Your task to perform on an android device: toggle location history Image 0: 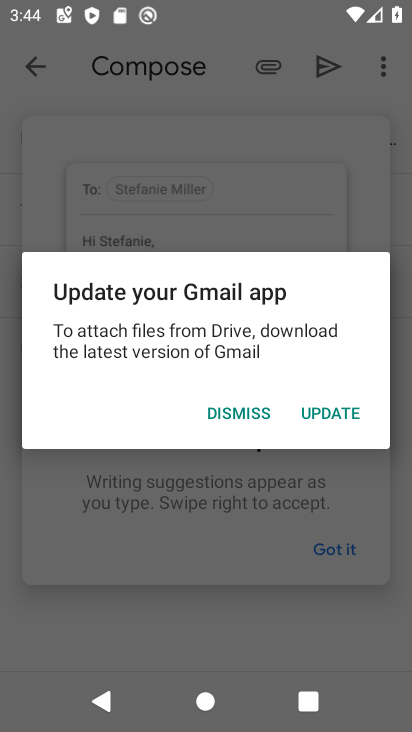
Step 0: press home button
Your task to perform on an android device: toggle location history Image 1: 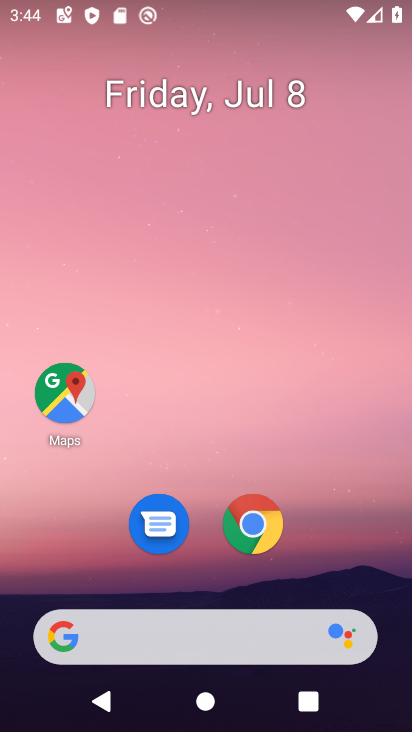
Step 1: drag from (349, 522) to (313, 0)
Your task to perform on an android device: toggle location history Image 2: 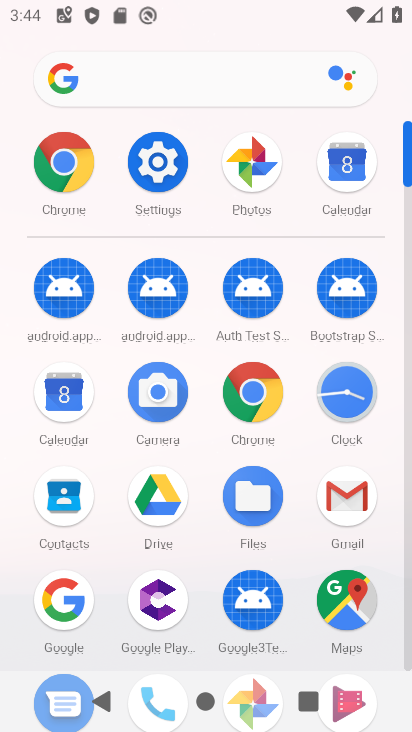
Step 2: click (159, 163)
Your task to perform on an android device: toggle location history Image 3: 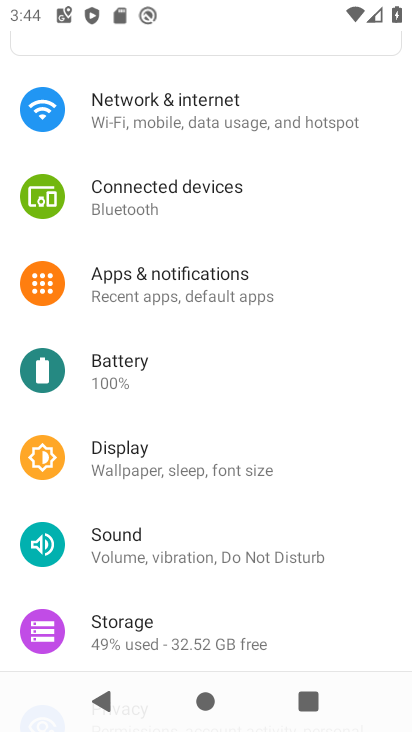
Step 3: drag from (233, 525) to (255, 139)
Your task to perform on an android device: toggle location history Image 4: 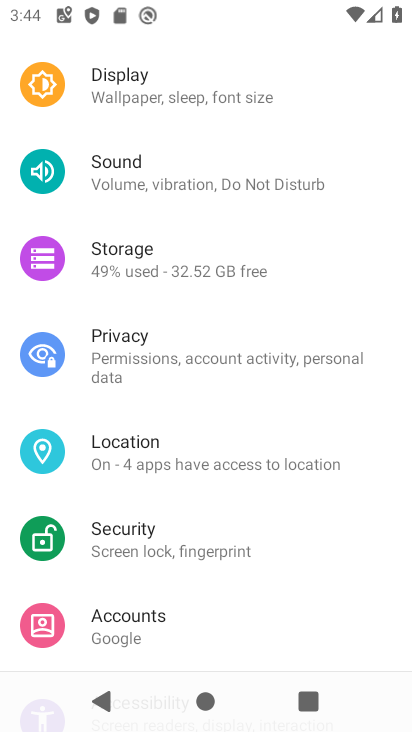
Step 4: click (195, 449)
Your task to perform on an android device: toggle location history Image 5: 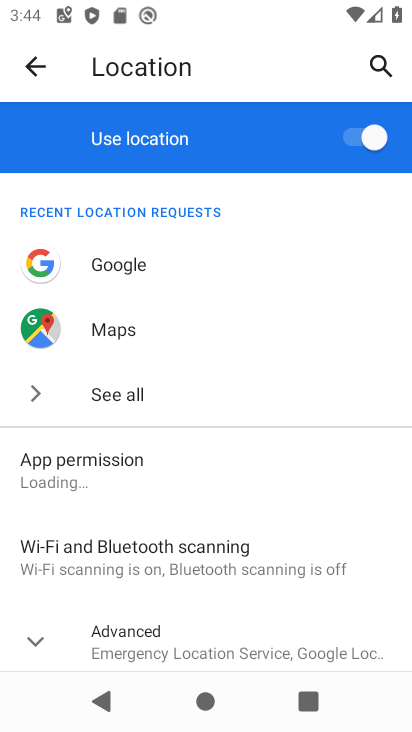
Step 5: drag from (212, 612) to (243, 502)
Your task to perform on an android device: toggle location history Image 6: 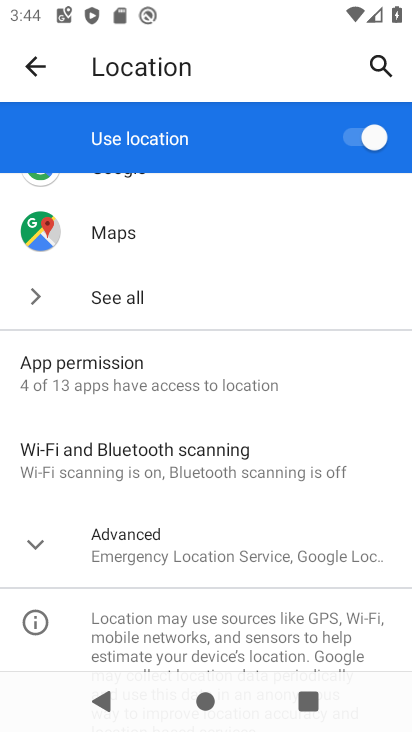
Step 6: click (37, 544)
Your task to perform on an android device: toggle location history Image 7: 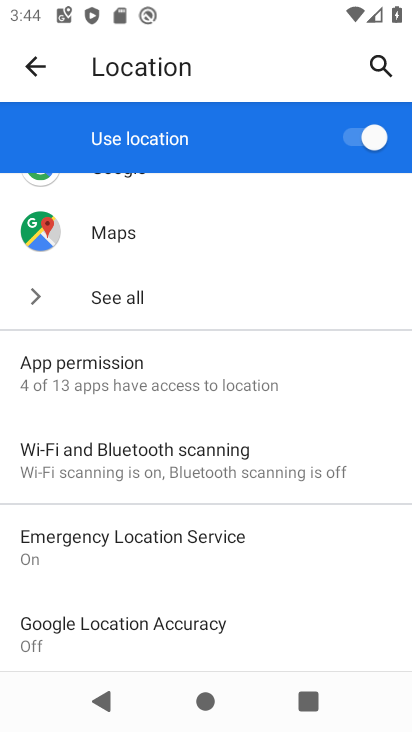
Step 7: drag from (249, 619) to (272, 317)
Your task to perform on an android device: toggle location history Image 8: 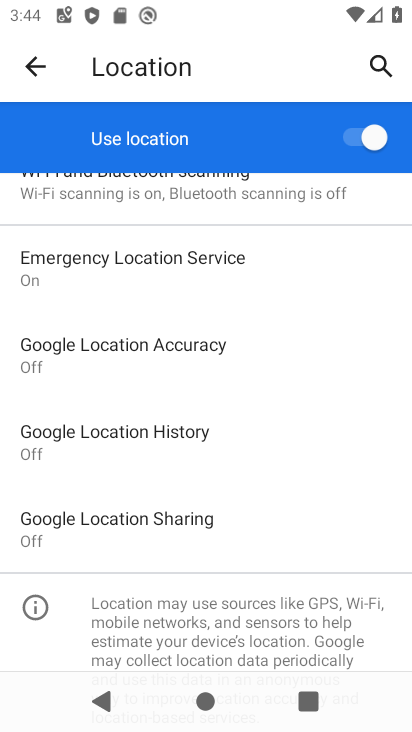
Step 8: click (173, 437)
Your task to perform on an android device: toggle location history Image 9: 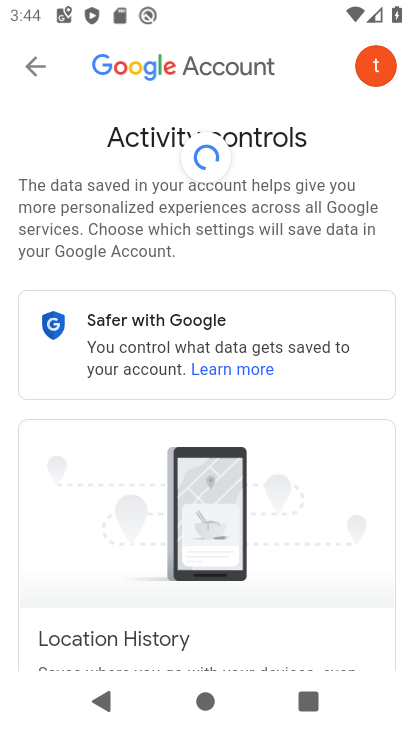
Step 9: drag from (284, 578) to (325, 169)
Your task to perform on an android device: toggle location history Image 10: 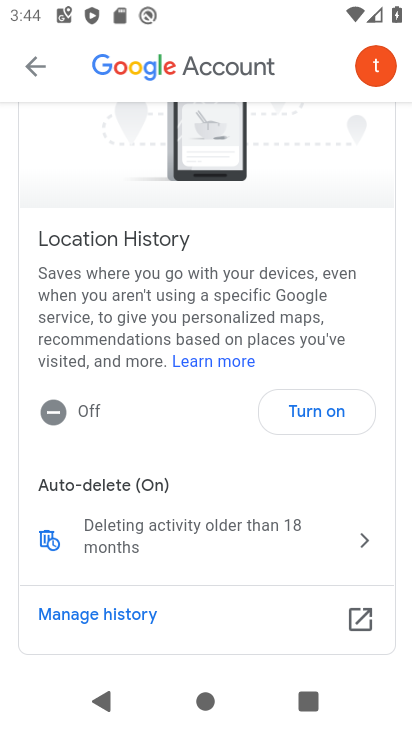
Step 10: click (337, 418)
Your task to perform on an android device: toggle location history Image 11: 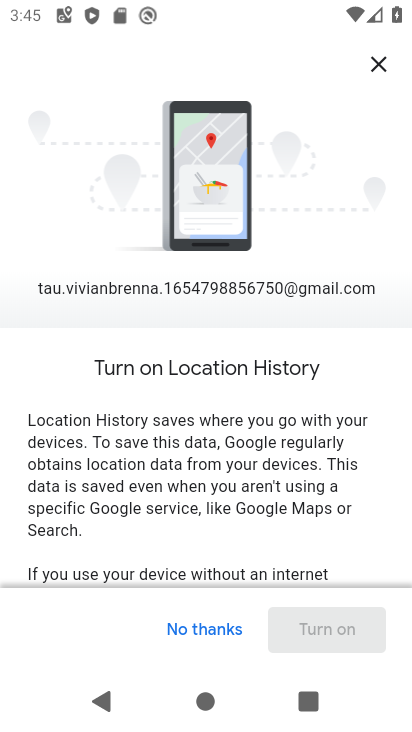
Step 11: drag from (295, 517) to (312, 26)
Your task to perform on an android device: toggle location history Image 12: 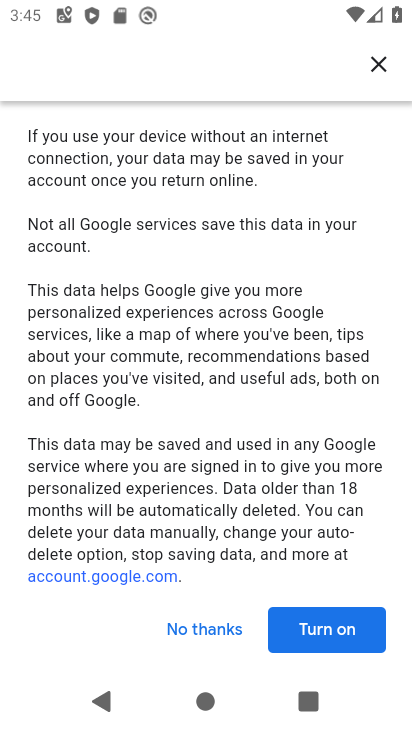
Step 12: click (349, 628)
Your task to perform on an android device: toggle location history Image 13: 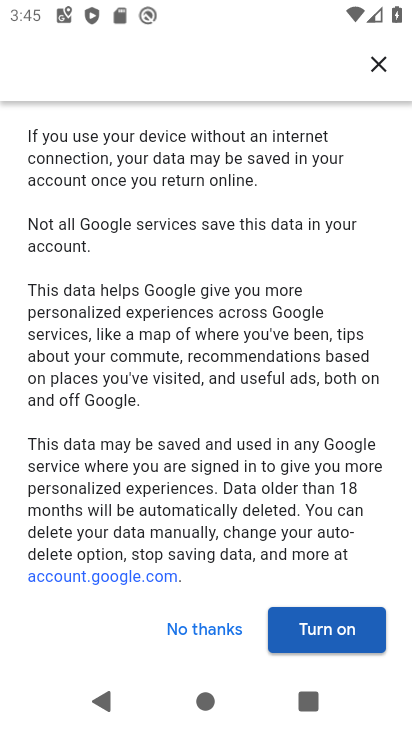
Step 13: click (349, 626)
Your task to perform on an android device: toggle location history Image 14: 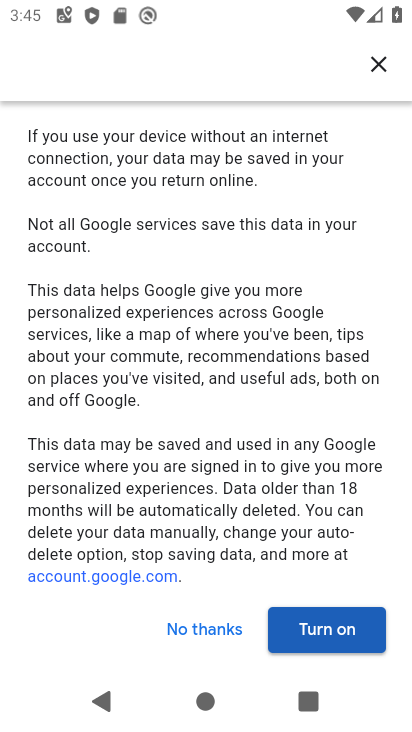
Step 14: click (327, 626)
Your task to perform on an android device: toggle location history Image 15: 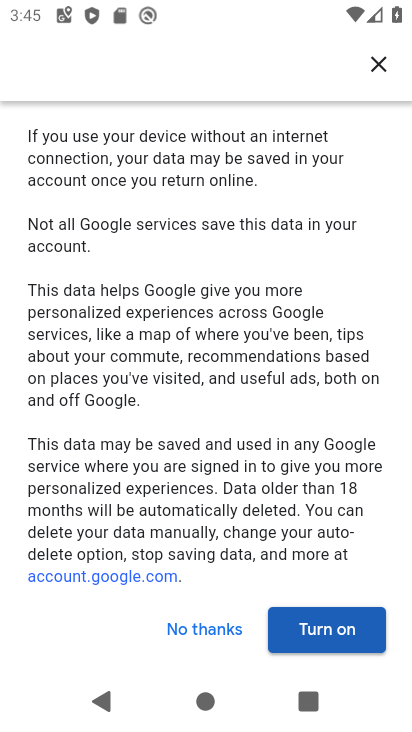
Step 15: click (351, 620)
Your task to perform on an android device: toggle location history Image 16: 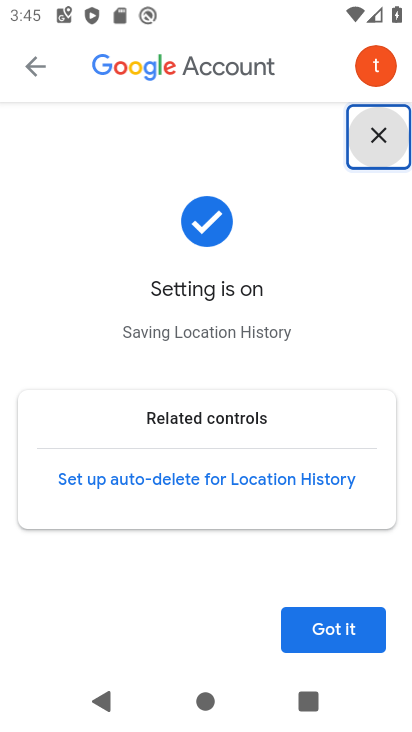
Step 16: click (353, 634)
Your task to perform on an android device: toggle location history Image 17: 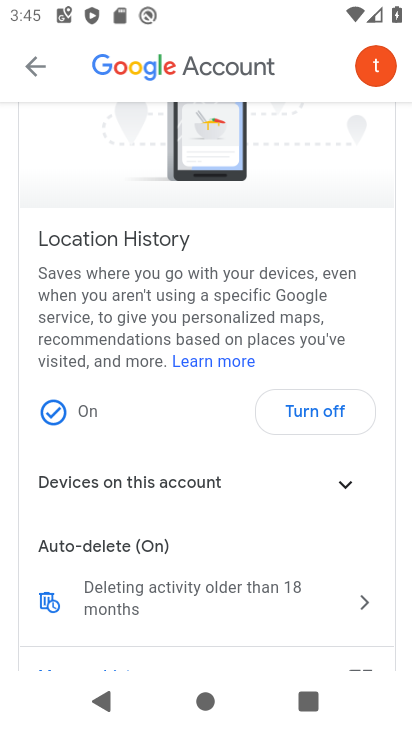
Step 17: task complete